Your task to perform on an android device: allow cookies in the chrome app Image 0: 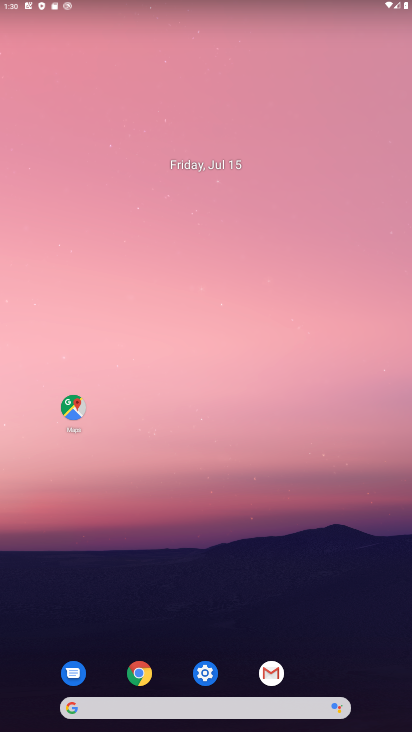
Step 0: press home button
Your task to perform on an android device: allow cookies in the chrome app Image 1: 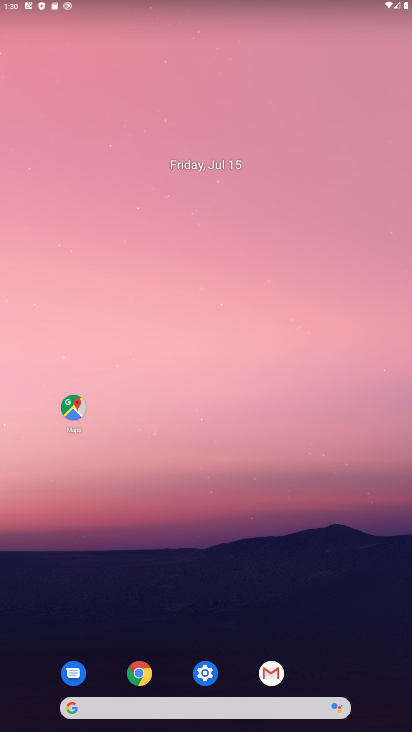
Step 1: click (139, 669)
Your task to perform on an android device: allow cookies in the chrome app Image 2: 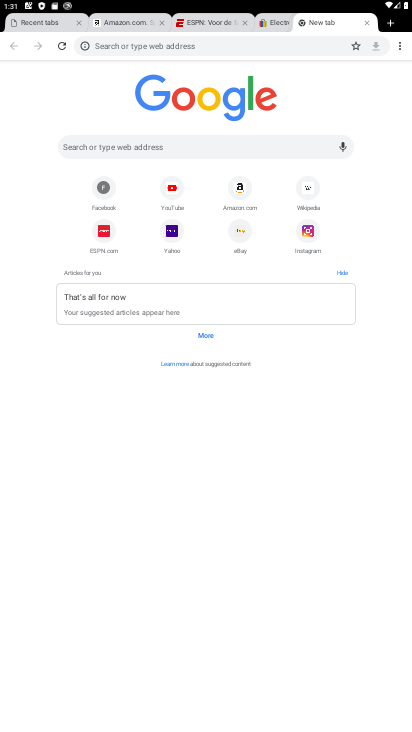
Step 2: click (392, 52)
Your task to perform on an android device: allow cookies in the chrome app Image 3: 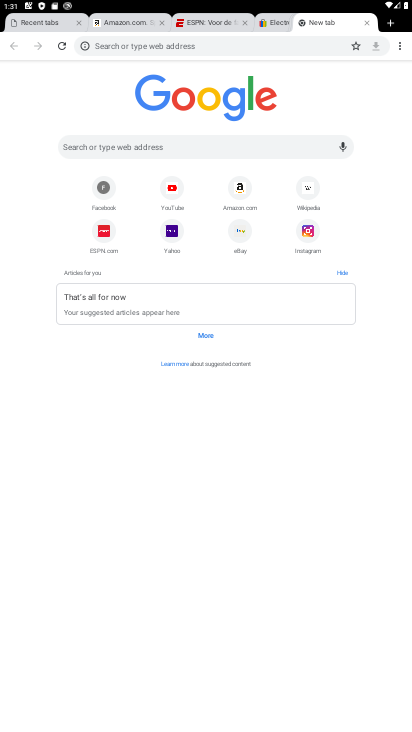
Step 3: click (397, 44)
Your task to perform on an android device: allow cookies in the chrome app Image 4: 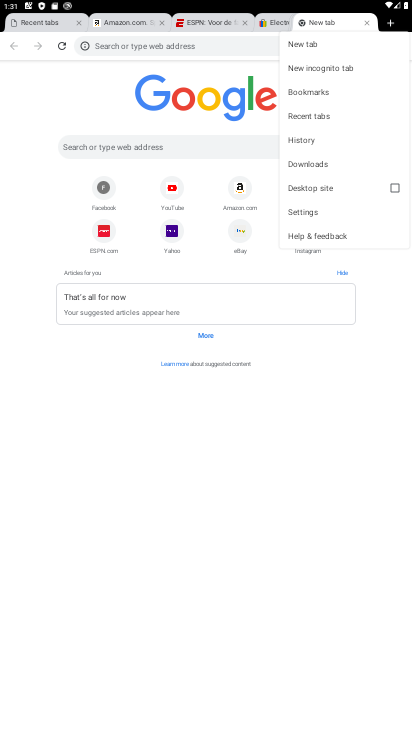
Step 4: click (311, 213)
Your task to perform on an android device: allow cookies in the chrome app Image 5: 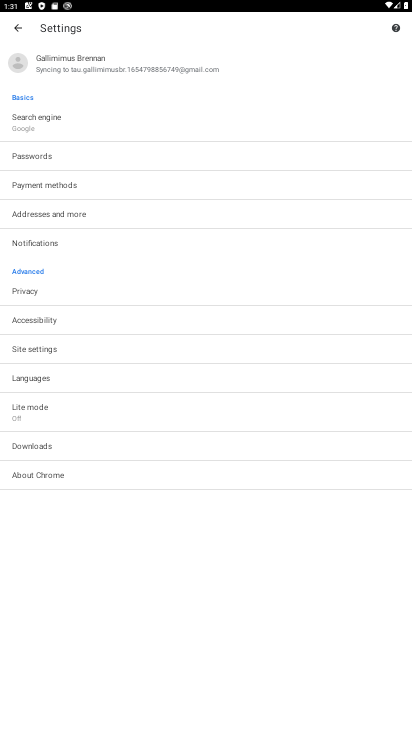
Step 5: click (44, 349)
Your task to perform on an android device: allow cookies in the chrome app Image 6: 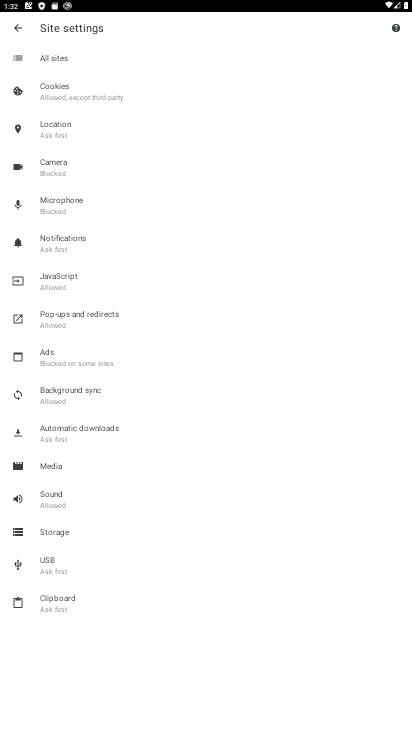
Step 6: click (70, 172)
Your task to perform on an android device: allow cookies in the chrome app Image 7: 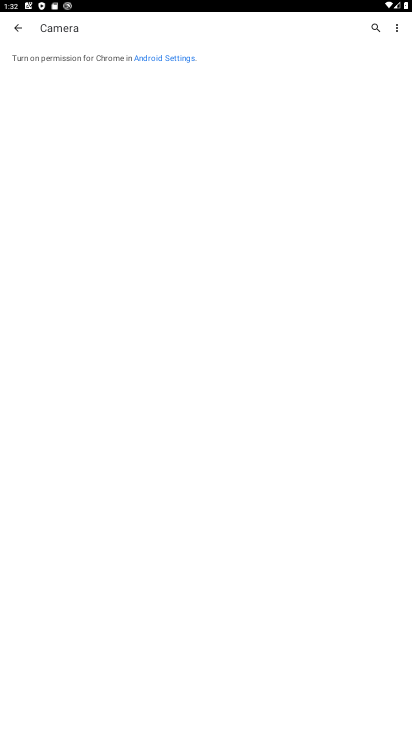
Step 7: task complete